Your task to perform on an android device: Go to display settings Image 0: 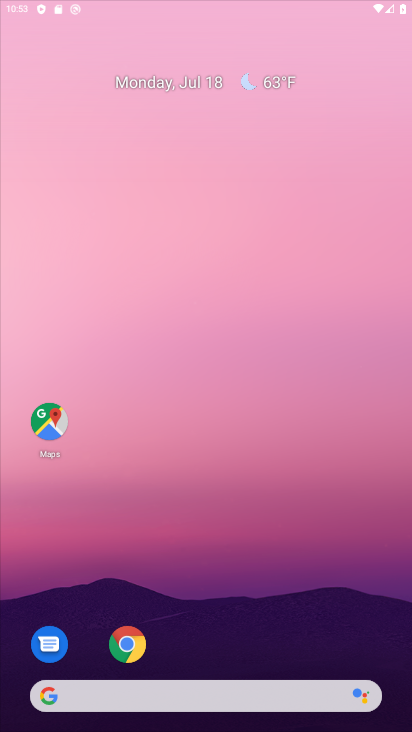
Step 0: click (200, 131)
Your task to perform on an android device: Go to display settings Image 1: 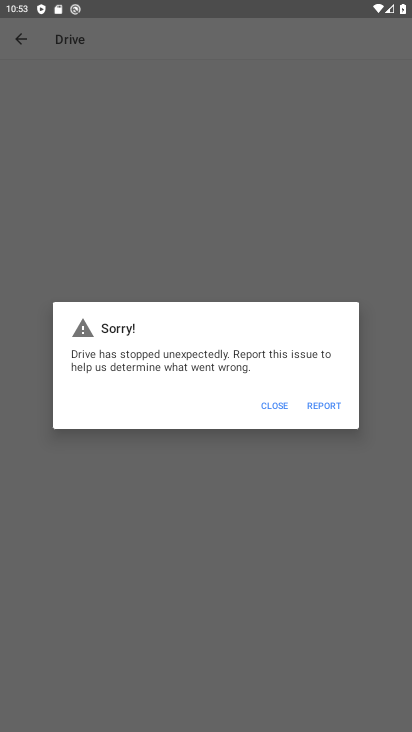
Step 1: press home button
Your task to perform on an android device: Go to display settings Image 2: 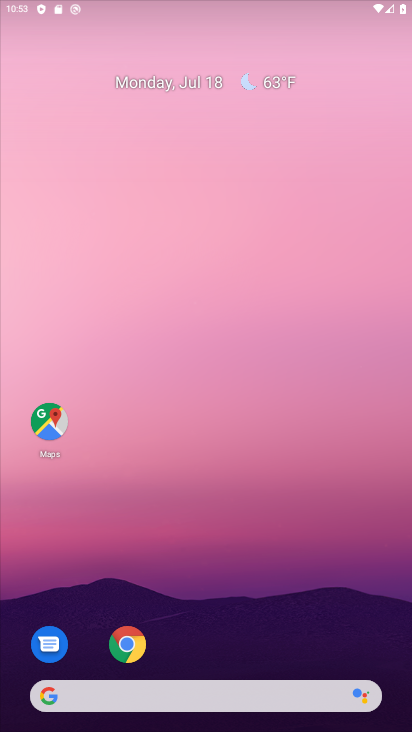
Step 2: drag from (252, 603) to (297, 1)
Your task to perform on an android device: Go to display settings Image 3: 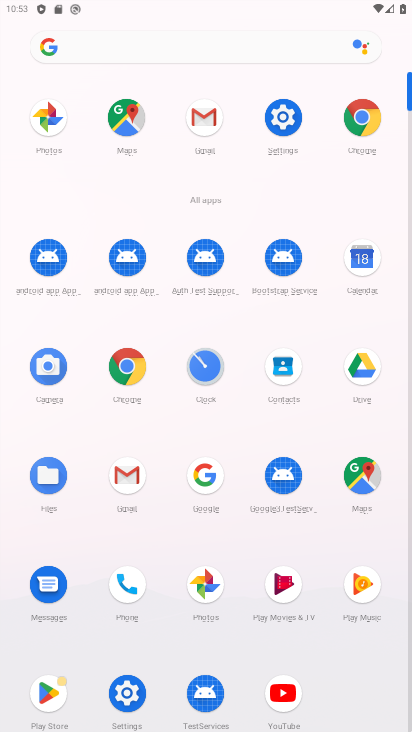
Step 3: click (289, 121)
Your task to perform on an android device: Go to display settings Image 4: 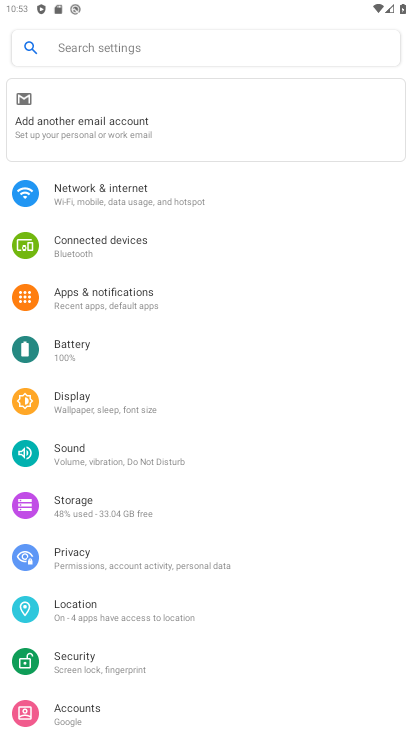
Step 4: click (59, 390)
Your task to perform on an android device: Go to display settings Image 5: 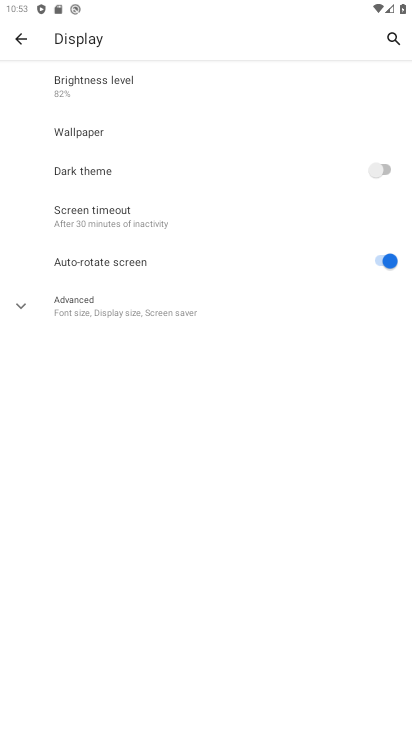
Step 5: task complete